Your task to perform on an android device: Go to Wikipedia Image 0: 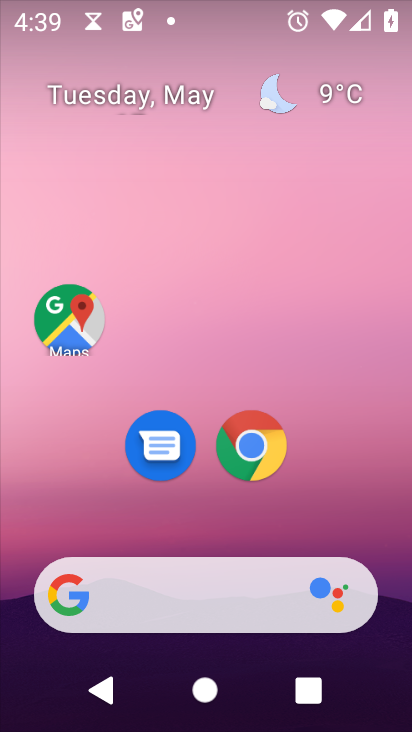
Step 0: drag from (290, 604) to (317, 18)
Your task to perform on an android device: Go to Wikipedia Image 1: 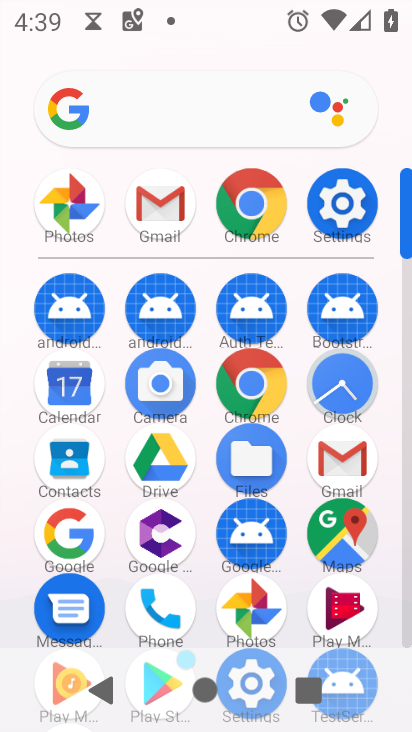
Step 1: click (253, 381)
Your task to perform on an android device: Go to Wikipedia Image 2: 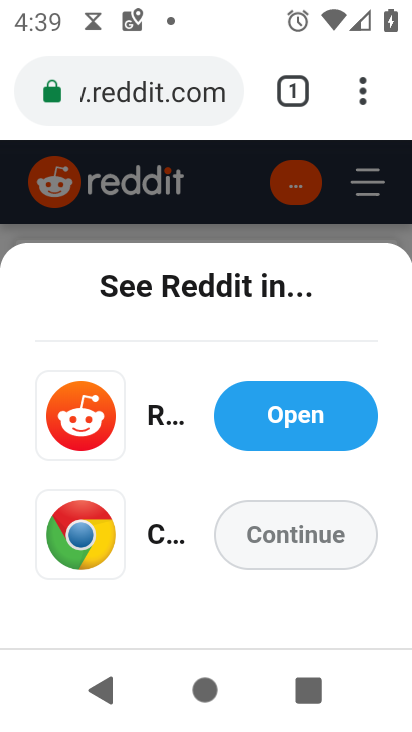
Step 2: click (142, 106)
Your task to perform on an android device: Go to Wikipedia Image 3: 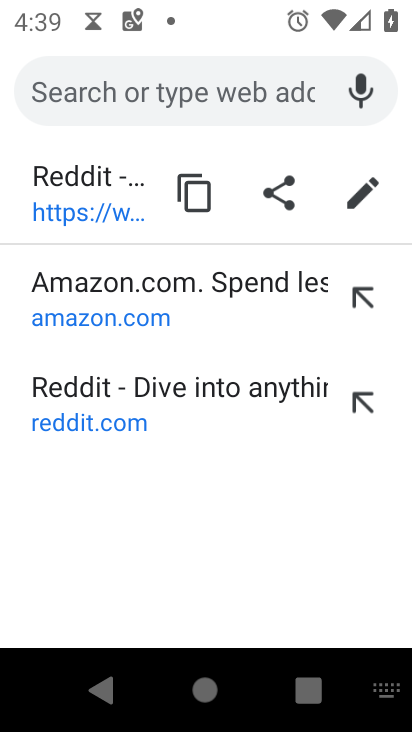
Step 3: type "wikipedia"
Your task to perform on an android device: Go to Wikipedia Image 4: 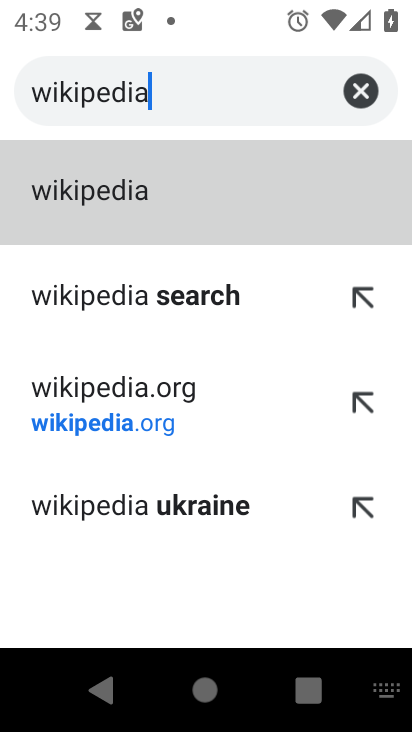
Step 4: click (119, 198)
Your task to perform on an android device: Go to Wikipedia Image 5: 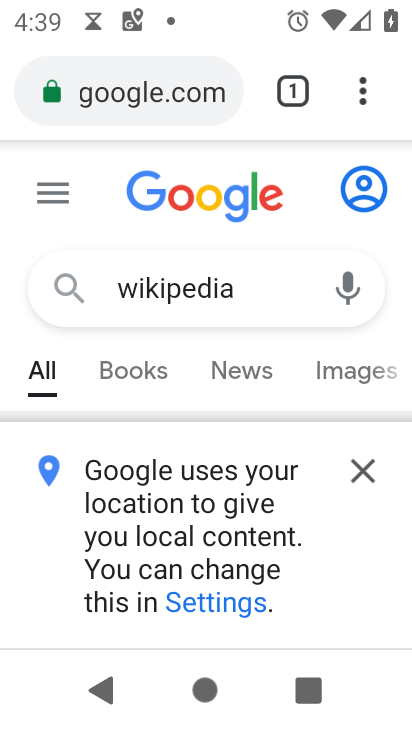
Step 5: click (347, 468)
Your task to perform on an android device: Go to Wikipedia Image 6: 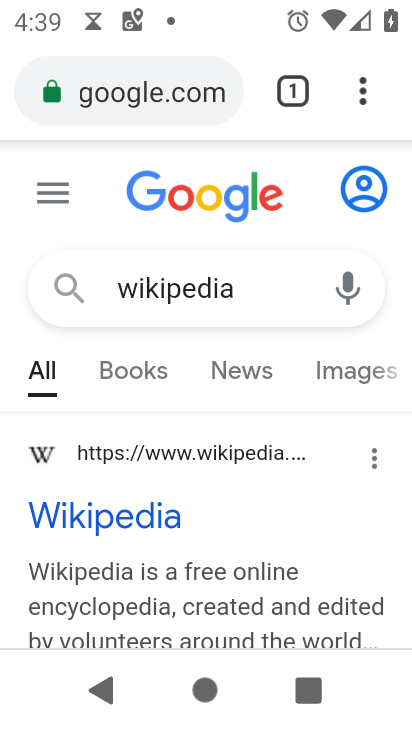
Step 6: task complete